Your task to perform on an android device: all mails in gmail Image 0: 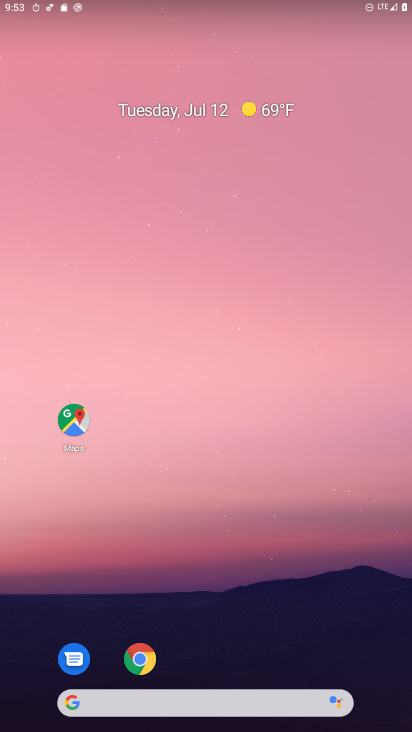
Step 0: drag from (208, 724) to (215, 228)
Your task to perform on an android device: all mails in gmail Image 1: 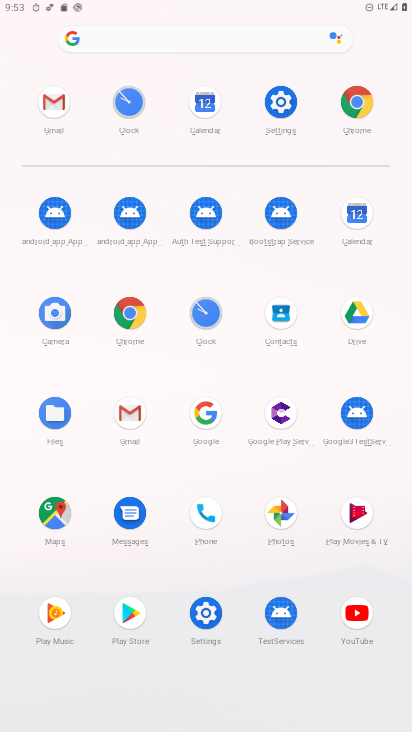
Step 1: click (132, 413)
Your task to perform on an android device: all mails in gmail Image 2: 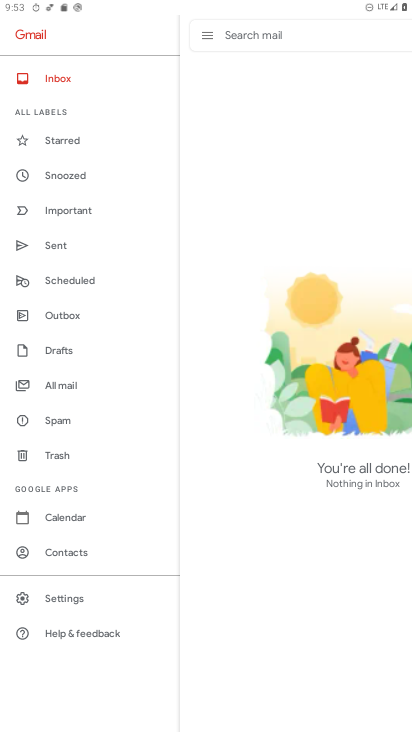
Step 2: click (59, 383)
Your task to perform on an android device: all mails in gmail Image 3: 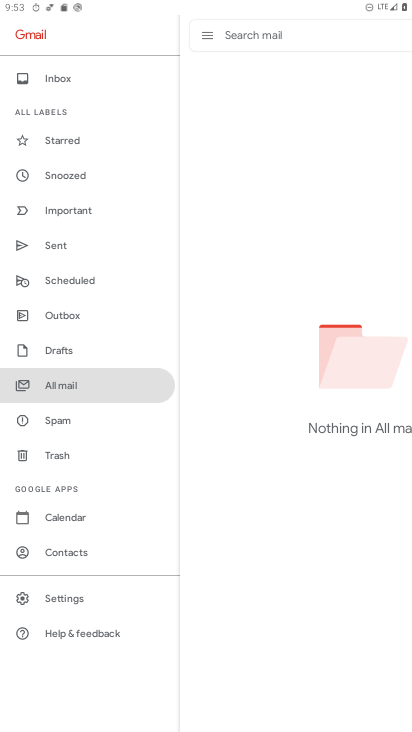
Step 3: task complete